Your task to perform on an android device: turn off data saver in the chrome app Image 0: 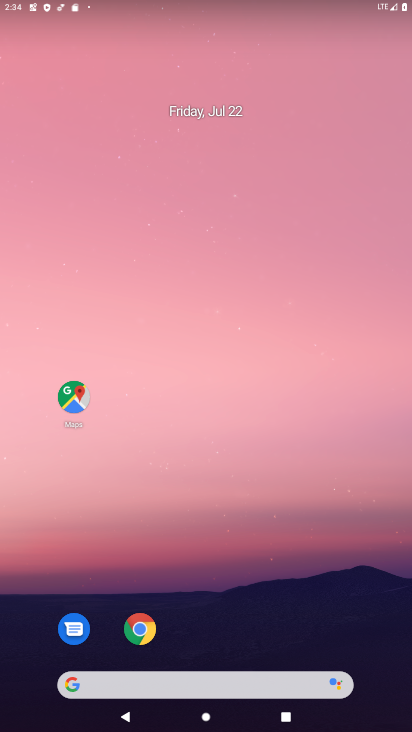
Step 0: click (141, 623)
Your task to perform on an android device: turn off data saver in the chrome app Image 1: 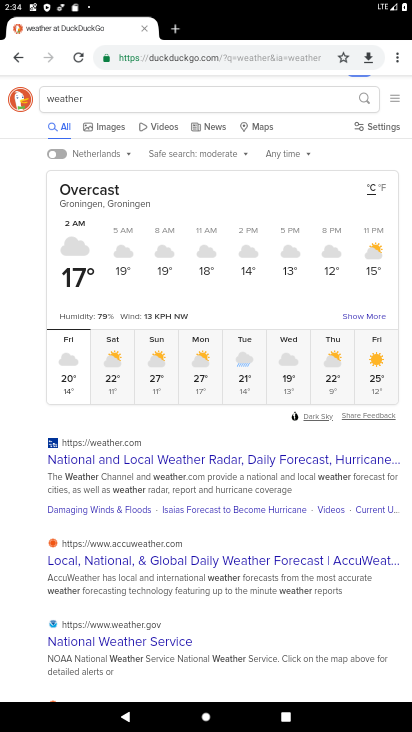
Step 1: drag from (394, 60) to (300, 381)
Your task to perform on an android device: turn off data saver in the chrome app Image 2: 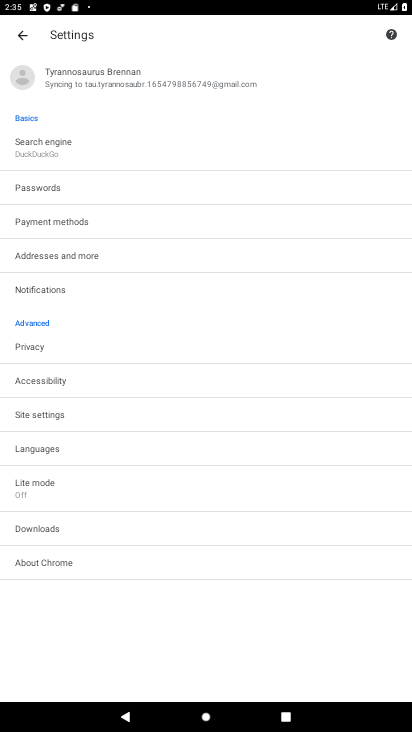
Step 2: click (40, 492)
Your task to perform on an android device: turn off data saver in the chrome app Image 3: 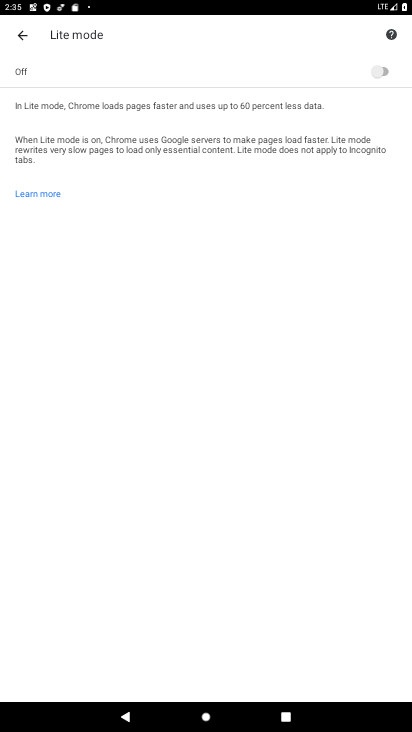
Step 3: task complete